Your task to perform on an android device: empty trash in google photos Image 0: 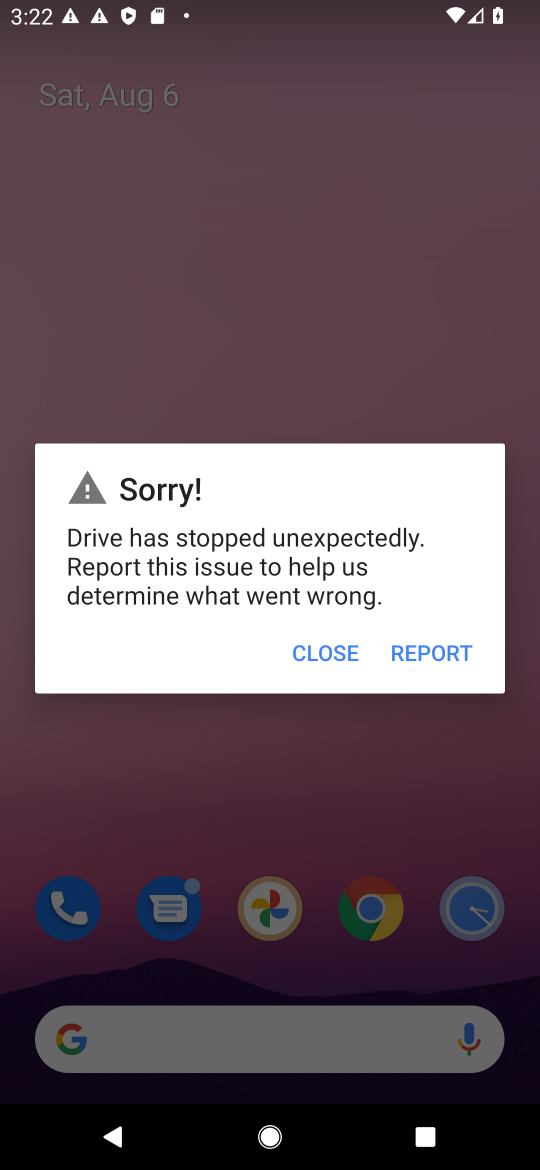
Step 0: click (308, 654)
Your task to perform on an android device: empty trash in google photos Image 1: 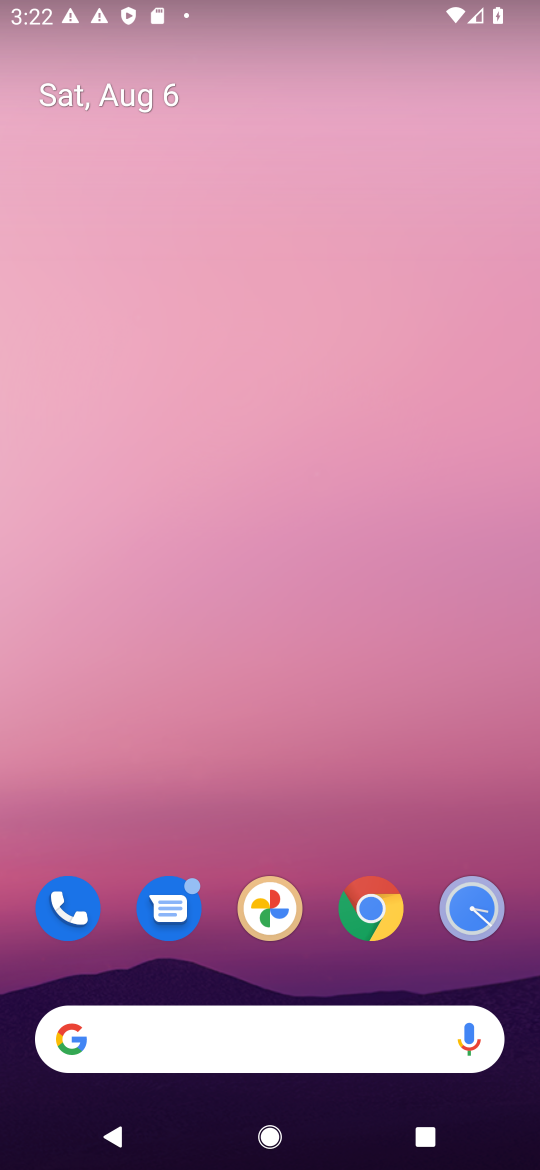
Step 1: click (271, 924)
Your task to perform on an android device: empty trash in google photos Image 2: 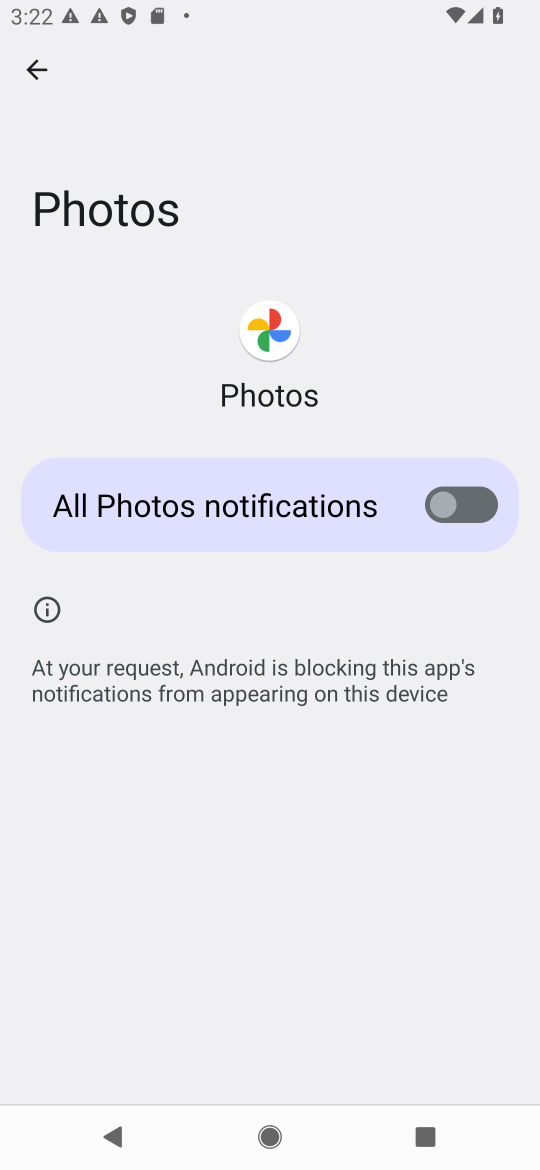
Step 2: click (25, 64)
Your task to perform on an android device: empty trash in google photos Image 3: 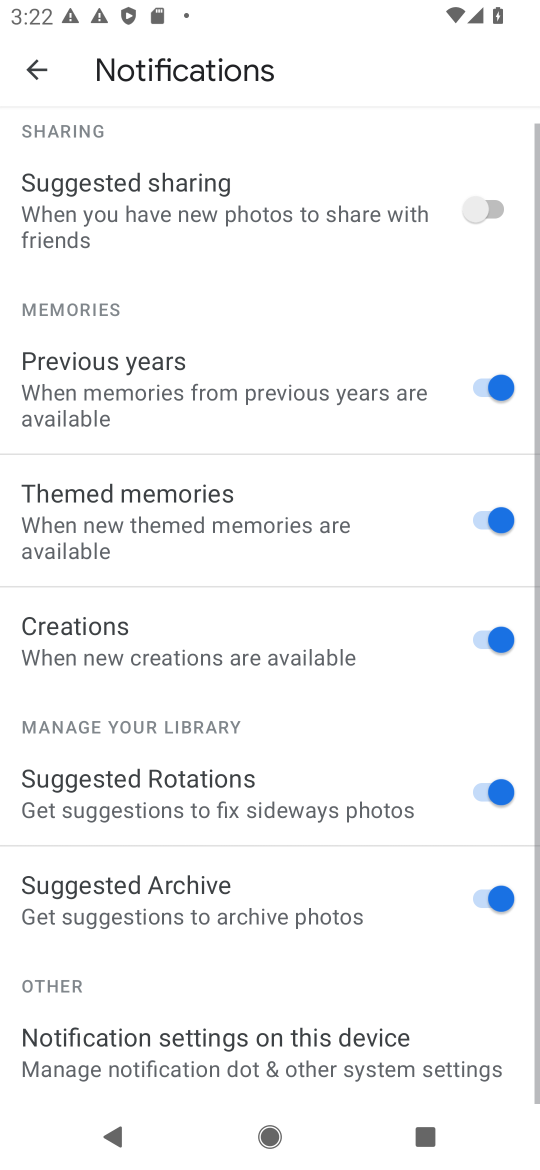
Step 3: click (29, 66)
Your task to perform on an android device: empty trash in google photos Image 4: 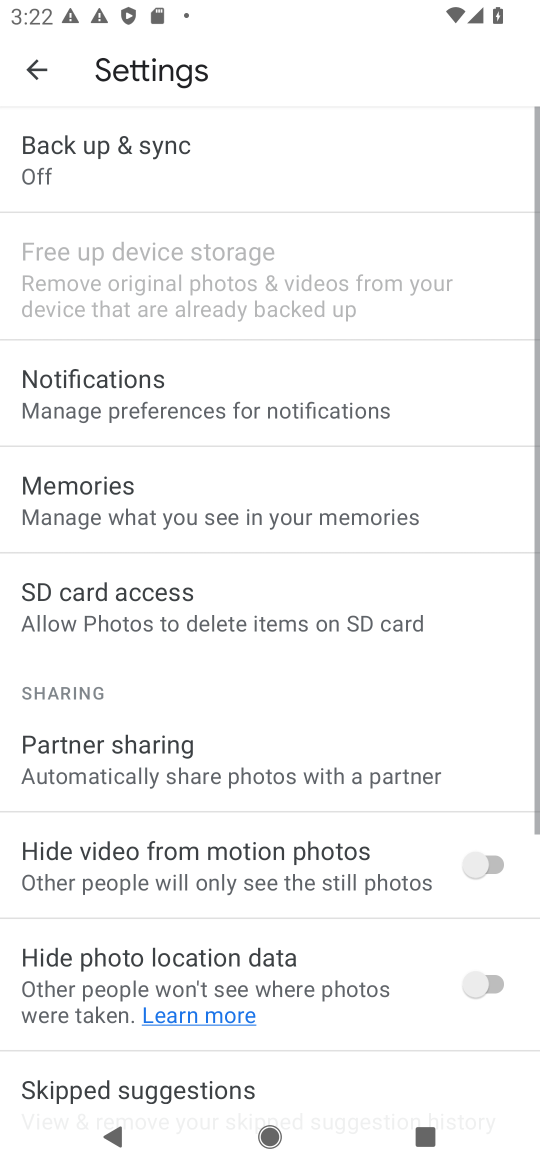
Step 4: click (29, 67)
Your task to perform on an android device: empty trash in google photos Image 5: 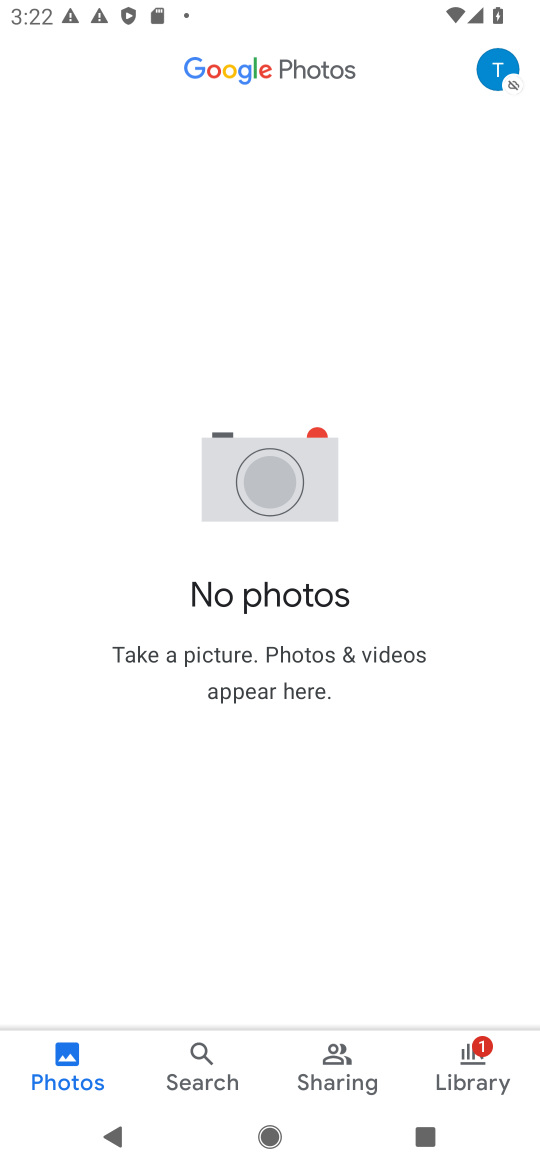
Step 5: click (491, 1060)
Your task to perform on an android device: empty trash in google photos Image 6: 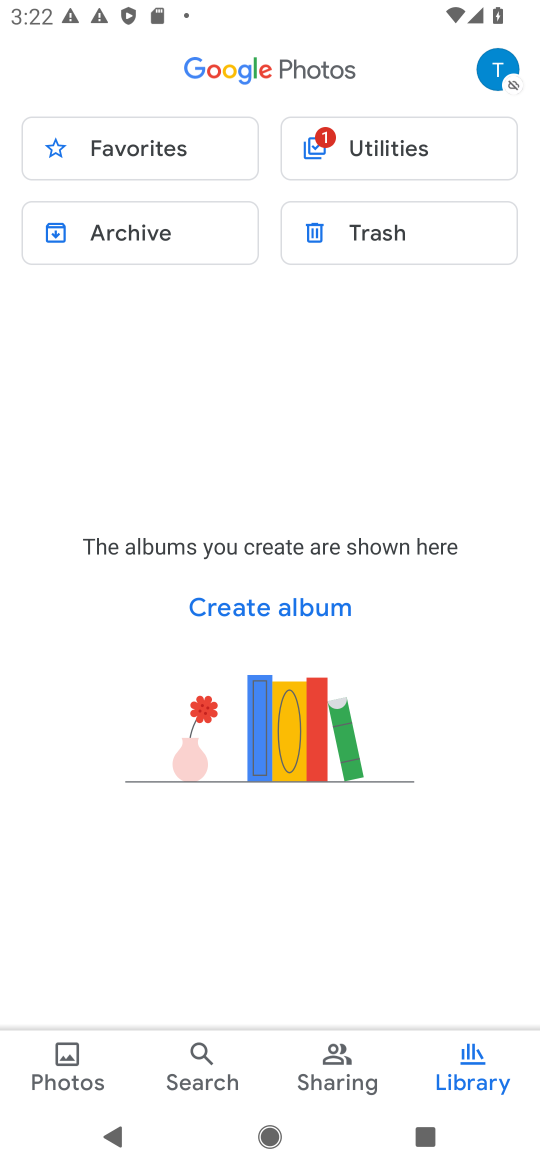
Step 6: click (389, 242)
Your task to perform on an android device: empty trash in google photos Image 7: 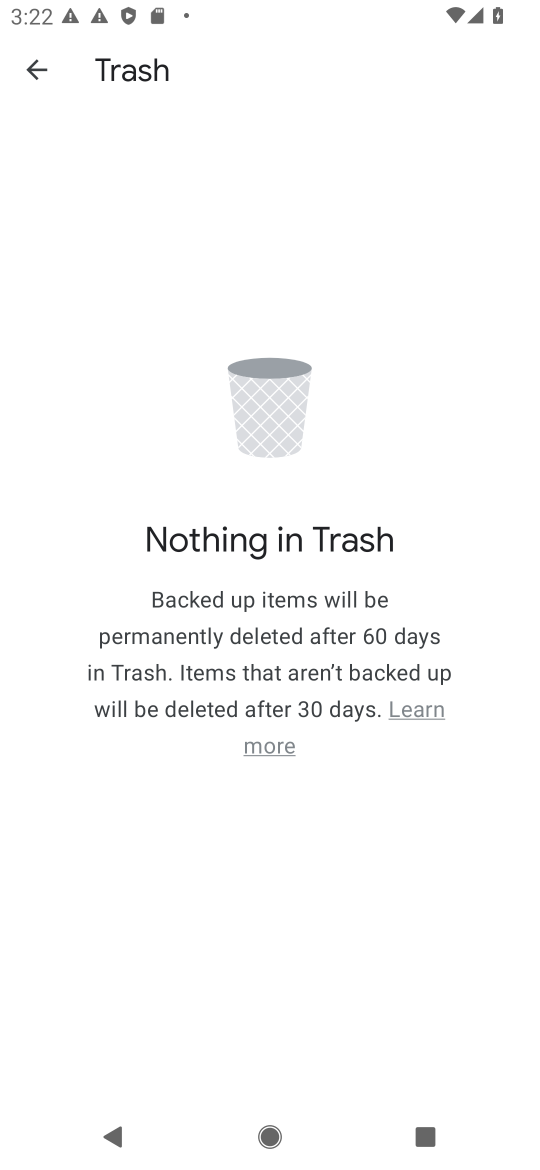
Step 7: task complete